Your task to perform on an android device: change your default location settings in chrome Image 0: 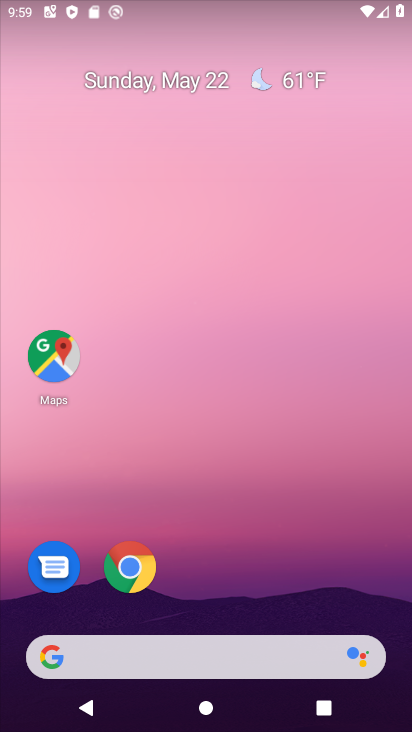
Step 0: drag from (227, 625) to (160, 71)
Your task to perform on an android device: change your default location settings in chrome Image 1: 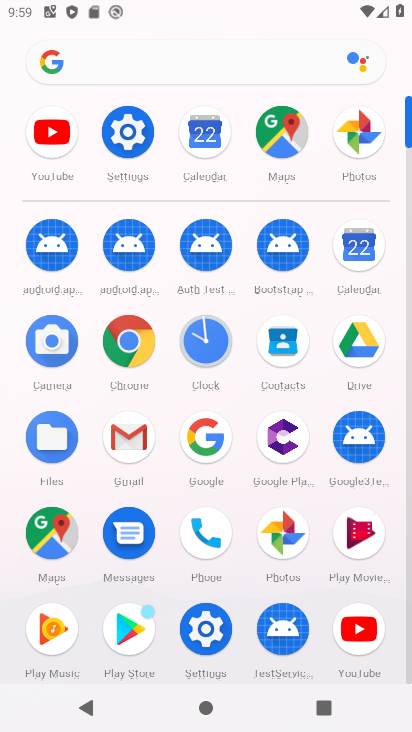
Step 1: click (137, 347)
Your task to perform on an android device: change your default location settings in chrome Image 2: 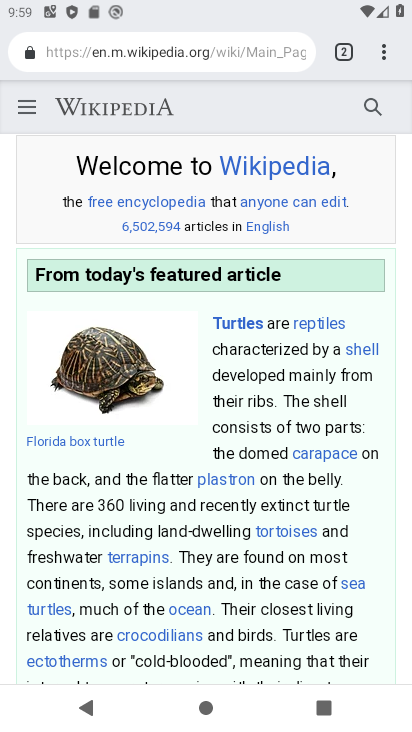
Step 2: drag from (382, 58) to (180, 602)
Your task to perform on an android device: change your default location settings in chrome Image 3: 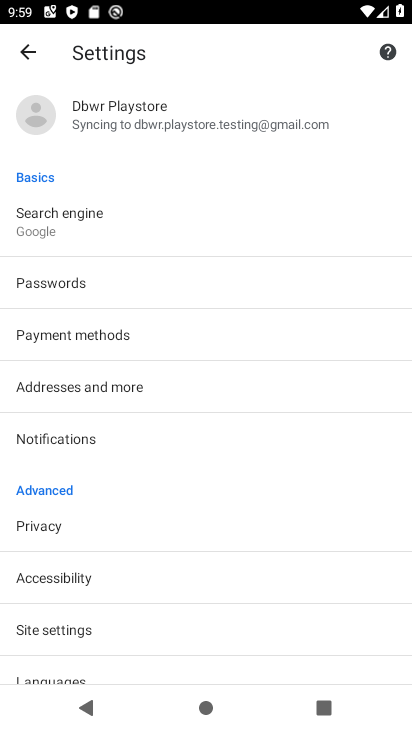
Step 3: click (60, 630)
Your task to perform on an android device: change your default location settings in chrome Image 4: 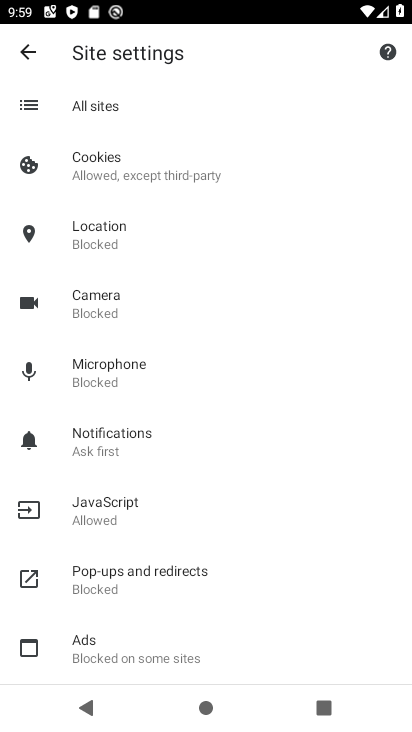
Step 4: click (94, 233)
Your task to perform on an android device: change your default location settings in chrome Image 5: 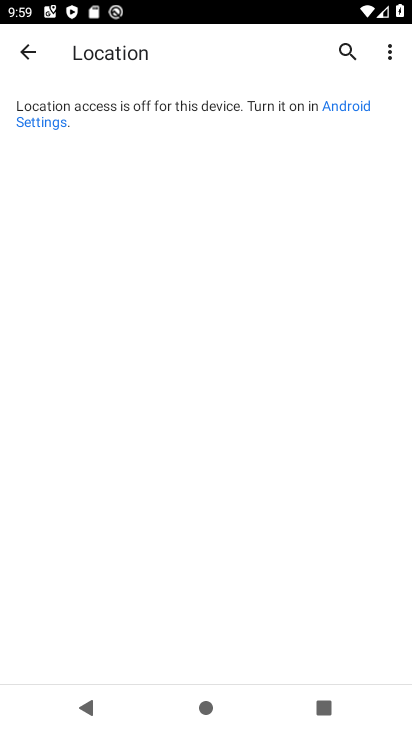
Step 5: click (332, 109)
Your task to perform on an android device: change your default location settings in chrome Image 6: 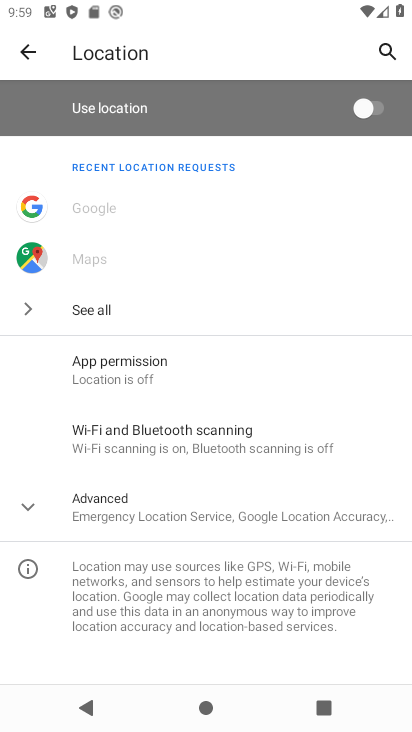
Step 6: click (358, 107)
Your task to perform on an android device: change your default location settings in chrome Image 7: 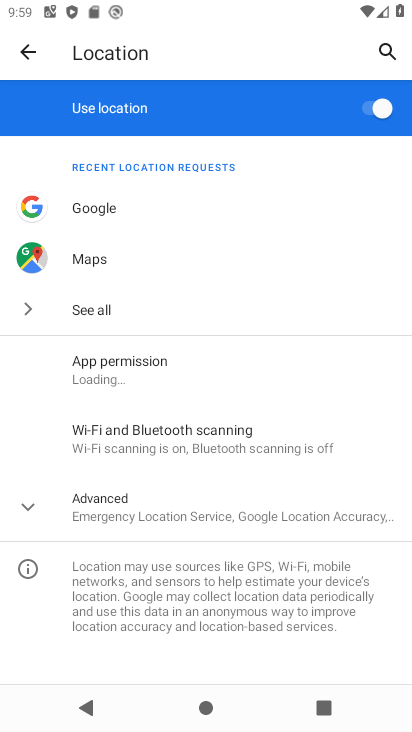
Step 7: task complete